Your task to perform on an android device: visit the assistant section in the google photos Image 0: 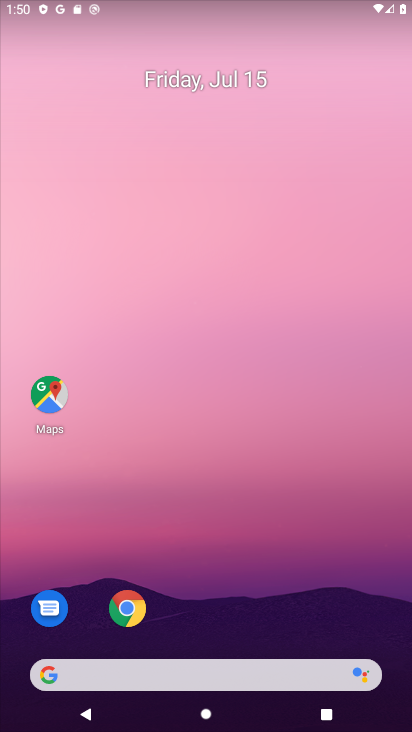
Step 0: click (262, 174)
Your task to perform on an android device: visit the assistant section in the google photos Image 1: 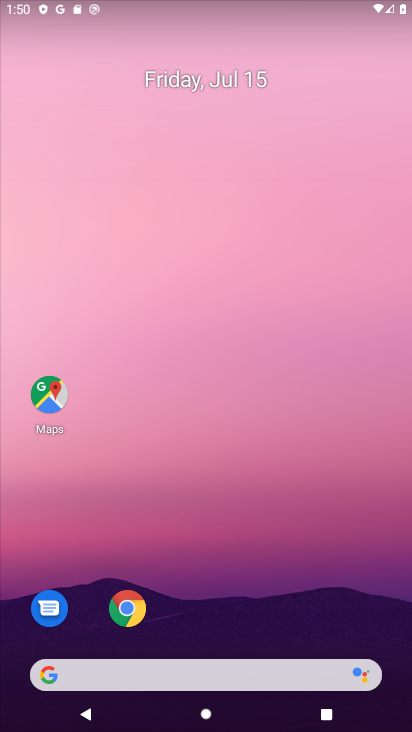
Step 1: drag from (219, 649) to (320, 92)
Your task to perform on an android device: visit the assistant section in the google photos Image 2: 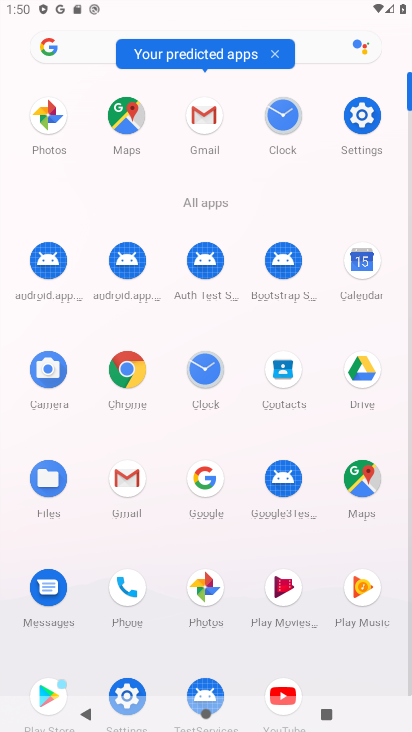
Step 2: click (208, 595)
Your task to perform on an android device: visit the assistant section in the google photos Image 3: 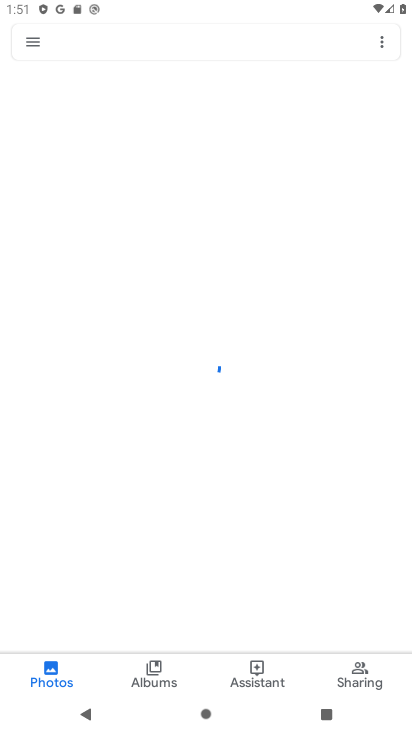
Step 3: click (249, 668)
Your task to perform on an android device: visit the assistant section in the google photos Image 4: 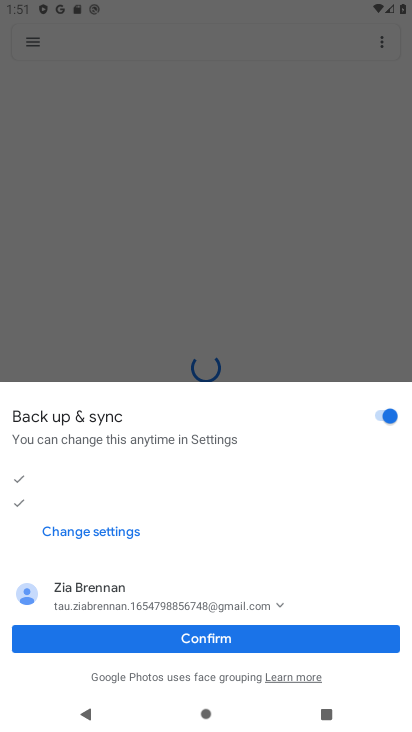
Step 4: click (216, 650)
Your task to perform on an android device: visit the assistant section in the google photos Image 5: 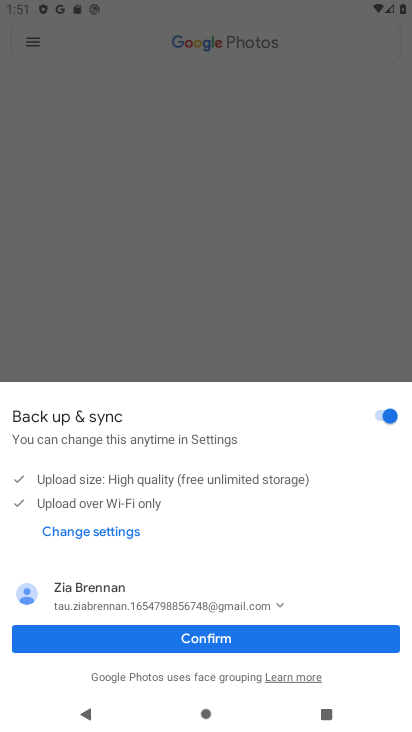
Step 5: click (222, 653)
Your task to perform on an android device: visit the assistant section in the google photos Image 6: 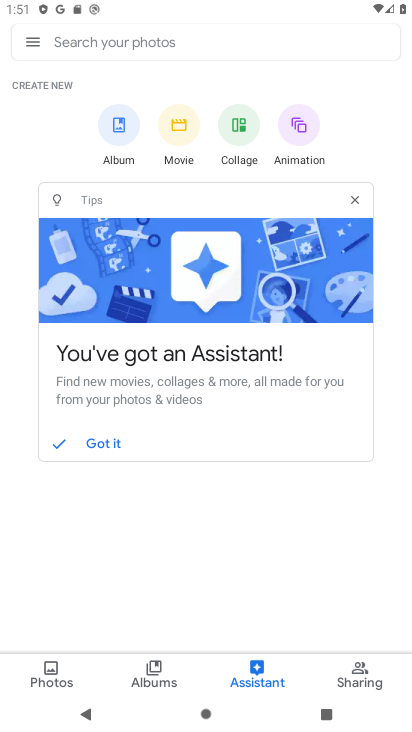
Step 6: task complete